Your task to perform on an android device: toggle show notifications on the lock screen Image 0: 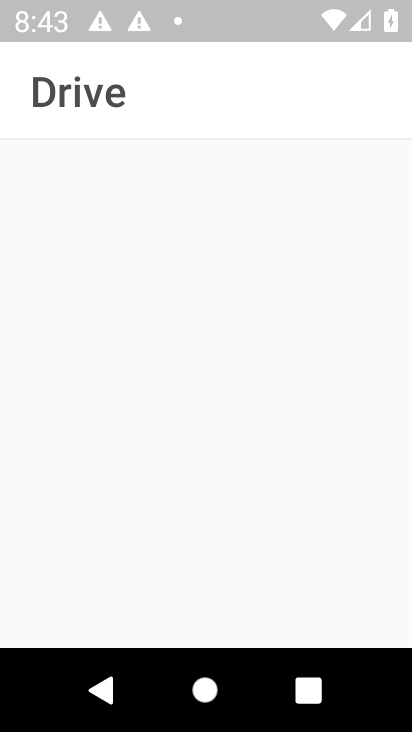
Step 0: press back button
Your task to perform on an android device: toggle show notifications on the lock screen Image 1: 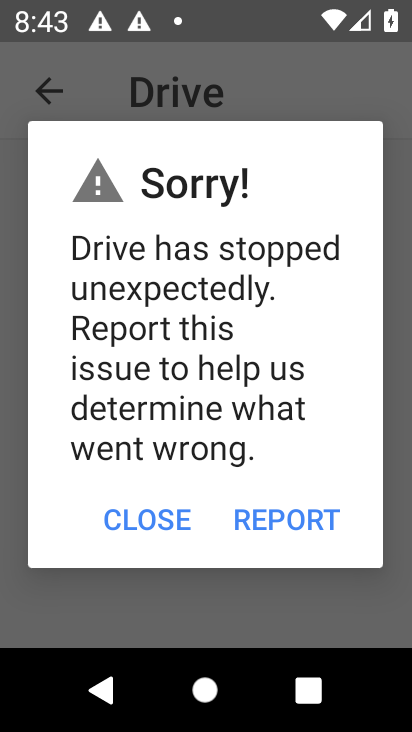
Step 1: press back button
Your task to perform on an android device: toggle show notifications on the lock screen Image 2: 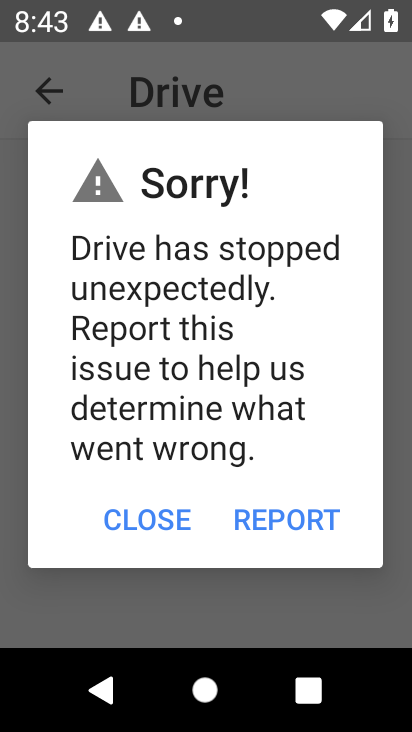
Step 2: press back button
Your task to perform on an android device: toggle show notifications on the lock screen Image 3: 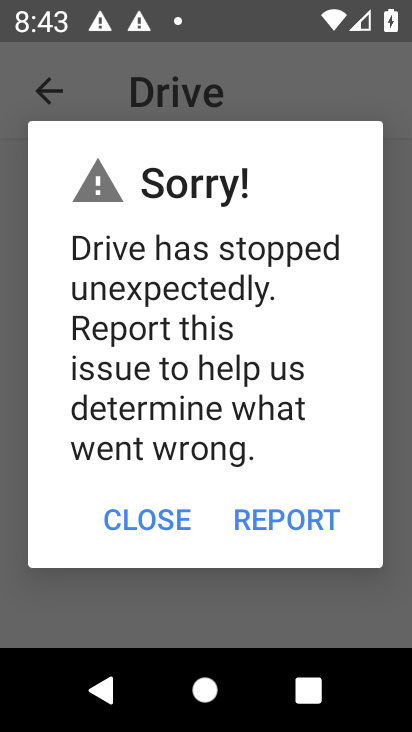
Step 3: press back button
Your task to perform on an android device: toggle show notifications on the lock screen Image 4: 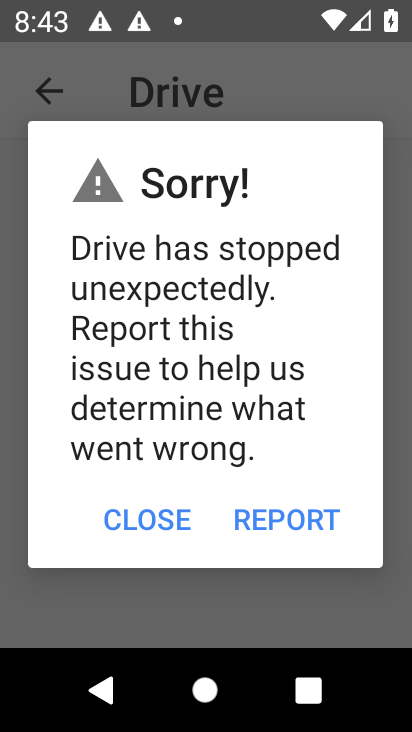
Step 4: press back button
Your task to perform on an android device: toggle show notifications on the lock screen Image 5: 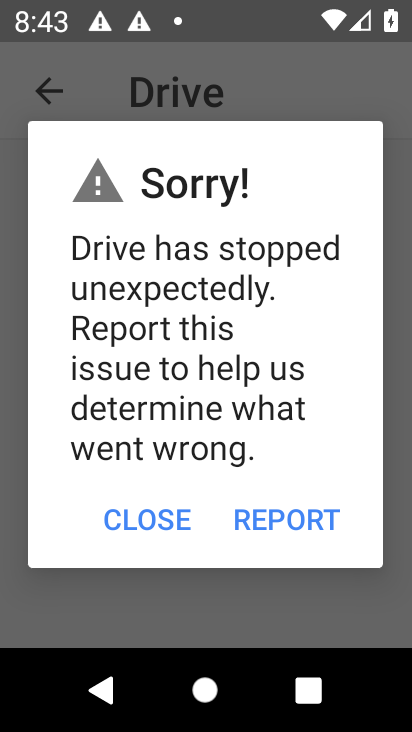
Step 5: press back button
Your task to perform on an android device: toggle show notifications on the lock screen Image 6: 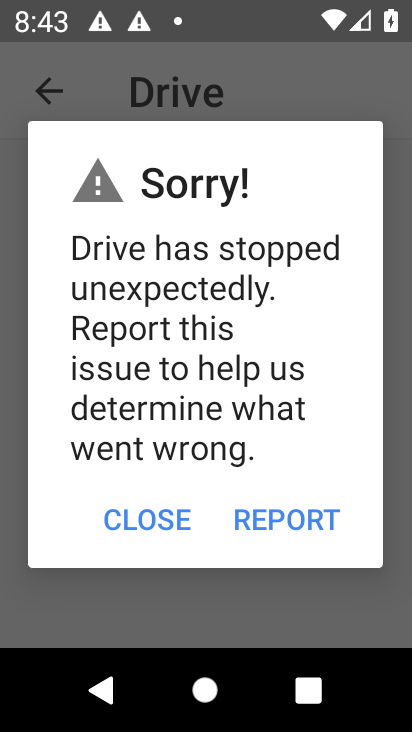
Step 6: click (124, 546)
Your task to perform on an android device: toggle show notifications on the lock screen Image 7: 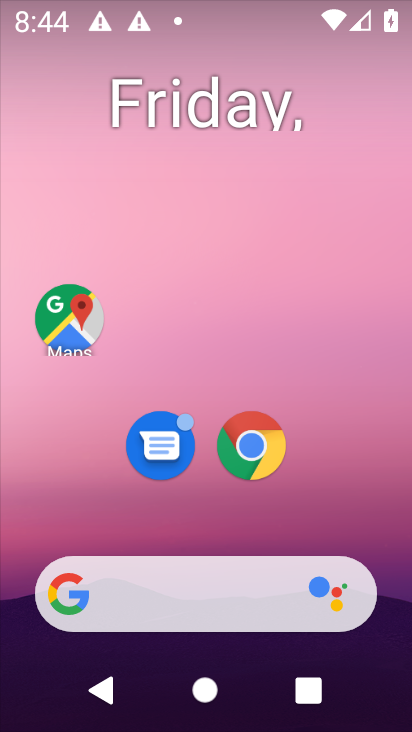
Step 7: drag from (218, 533) to (299, 252)
Your task to perform on an android device: toggle show notifications on the lock screen Image 8: 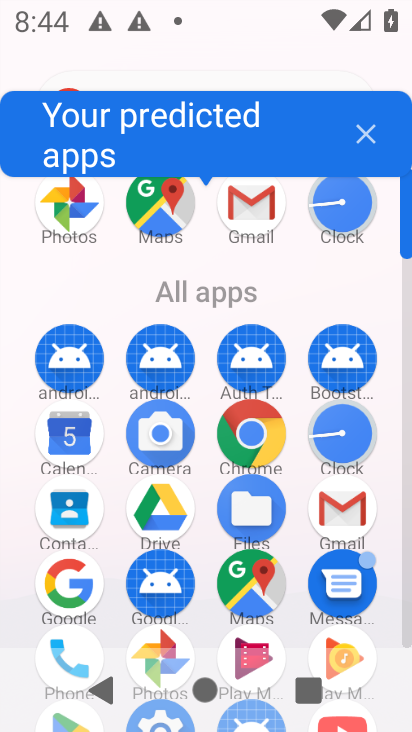
Step 8: drag from (116, 538) to (297, 67)
Your task to perform on an android device: toggle show notifications on the lock screen Image 9: 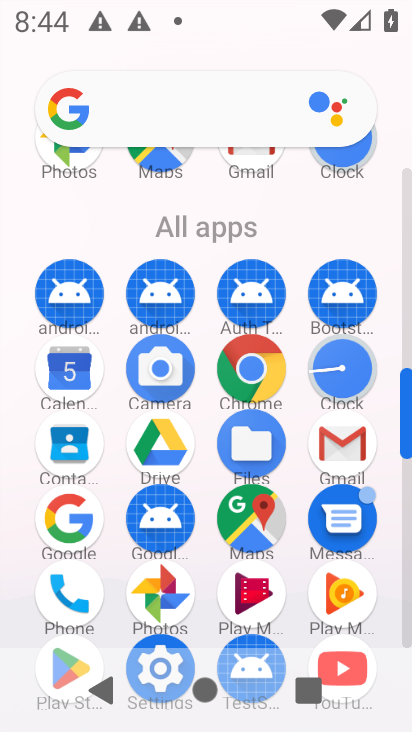
Step 9: click (153, 641)
Your task to perform on an android device: toggle show notifications on the lock screen Image 10: 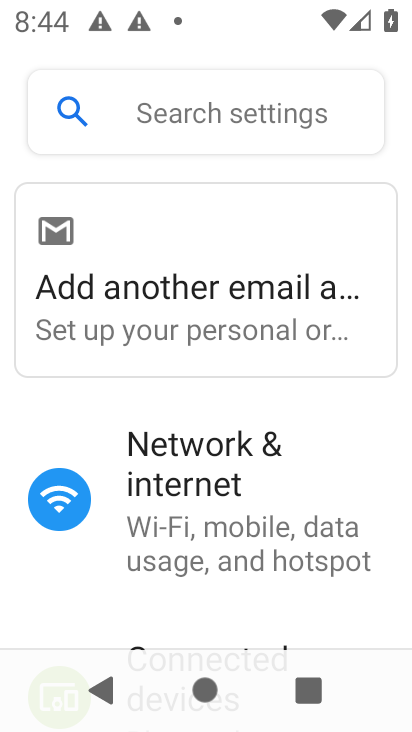
Step 10: drag from (233, 501) to (267, 40)
Your task to perform on an android device: toggle show notifications on the lock screen Image 11: 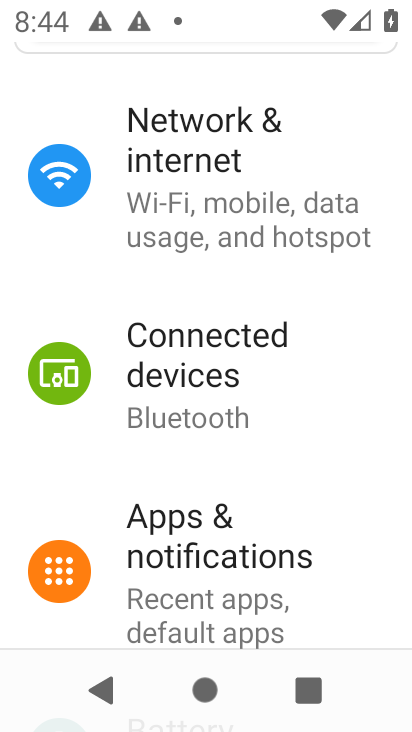
Step 11: click (87, 517)
Your task to perform on an android device: toggle show notifications on the lock screen Image 12: 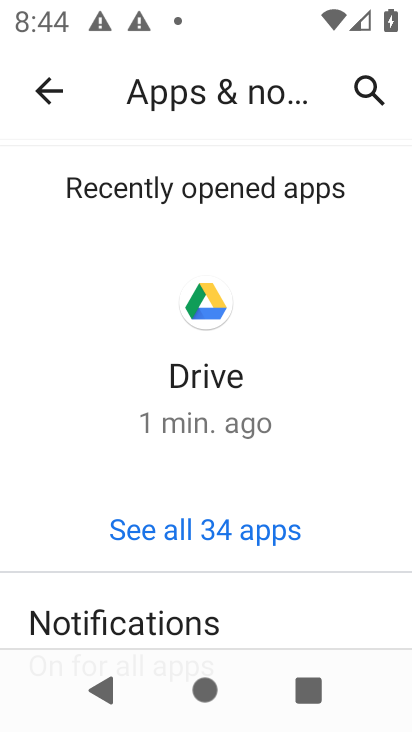
Step 12: click (241, 623)
Your task to perform on an android device: toggle show notifications on the lock screen Image 13: 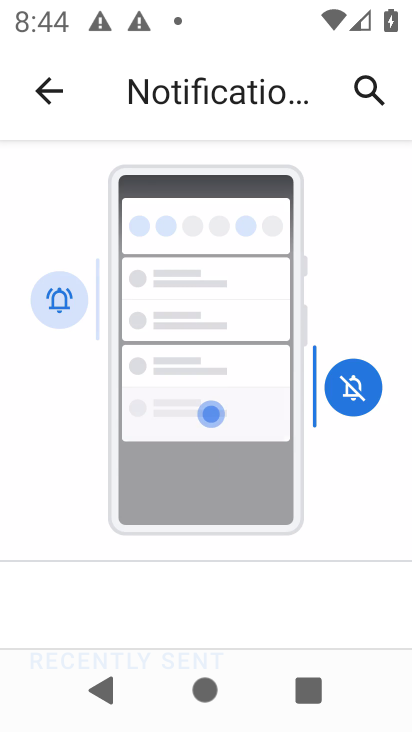
Step 13: drag from (241, 623) to (192, 89)
Your task to perform on an android device: toggle show notifications on the lock screen Image 14: 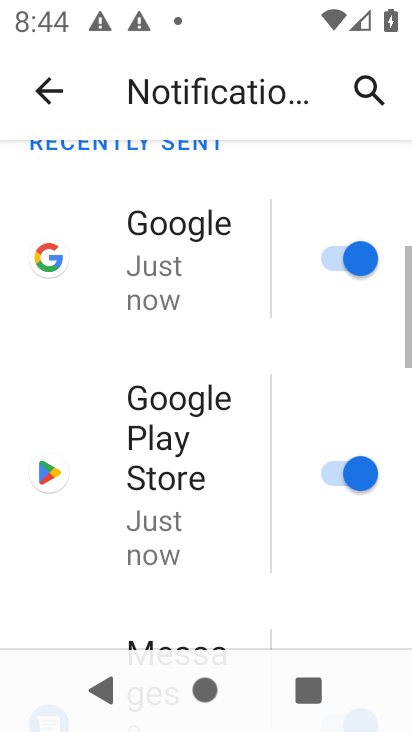
Step 14: drag from (256, 499) to (259, 47)
Your task to perform on an android device: toggle show notifications on the lock screen Image 15: 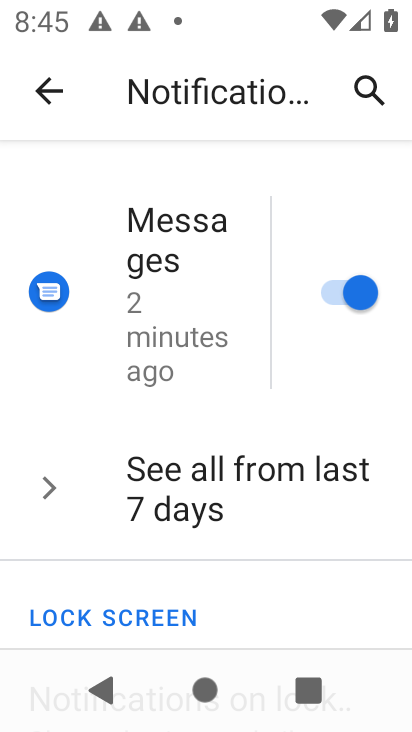
Step 15: drag from (139, 634) to (121, 99)
Your task to perform on an android device: toggle show notifications on the lock screen Image 16: 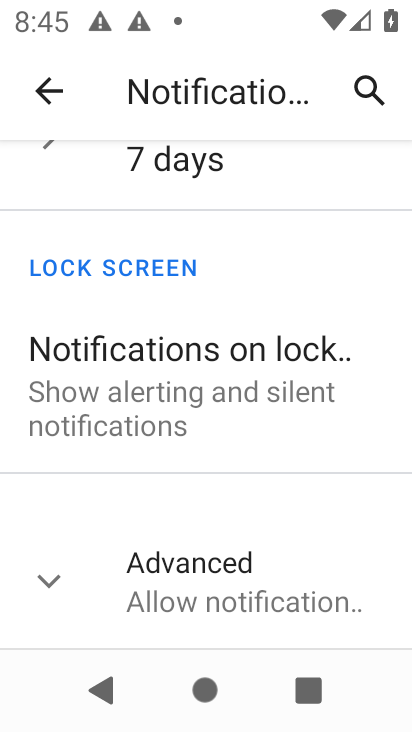
Step 16: click (276, 395)
Your task to perform on an android device: toggle show notifications on the lock screen Image 17: 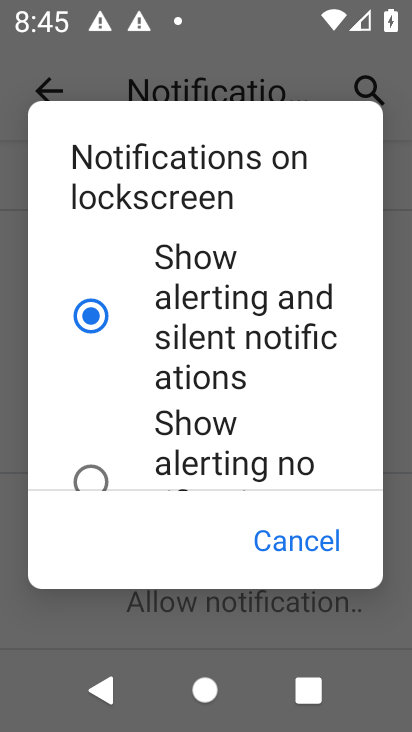
Step 17: click (151, 443)
Your task to perform on an android device: toggle show notifications on the lock screen Image 18: 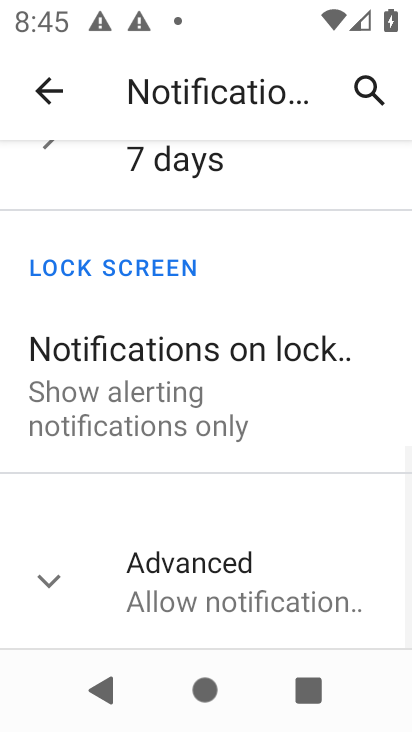
Step 18: task complete